Your task to perform on an android device: set default search engine in the chrome app Image 0: 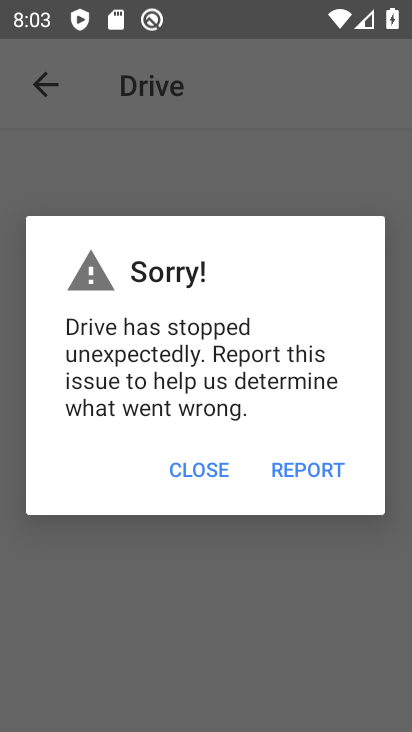
Step 0: press home button
Your task to perform on an android device: set default search engine in the chrome app Image 1: 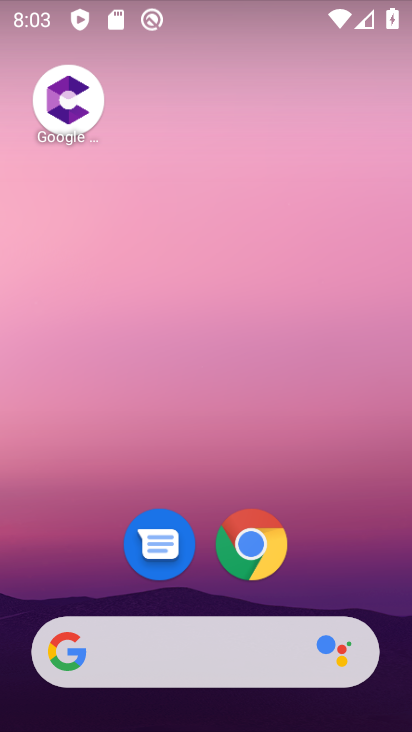
Step 1: click (248, 547)
Your task to perform on an android device: set default search engine in the chrome app Image 2: 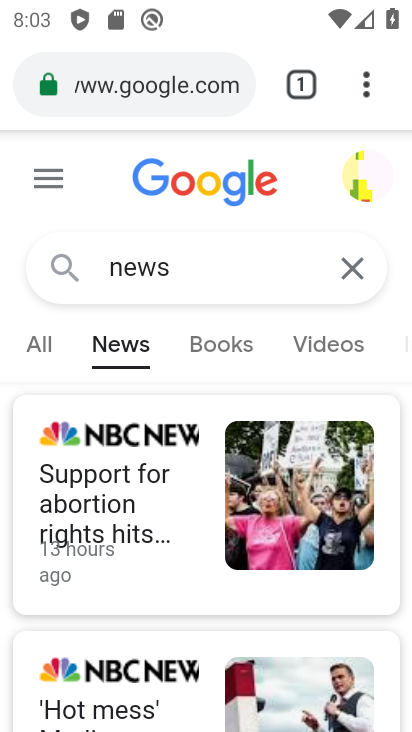
Step 2: click (380, 85)
Your task to perform on an android device: set default search engine in the chrome app Image 3: 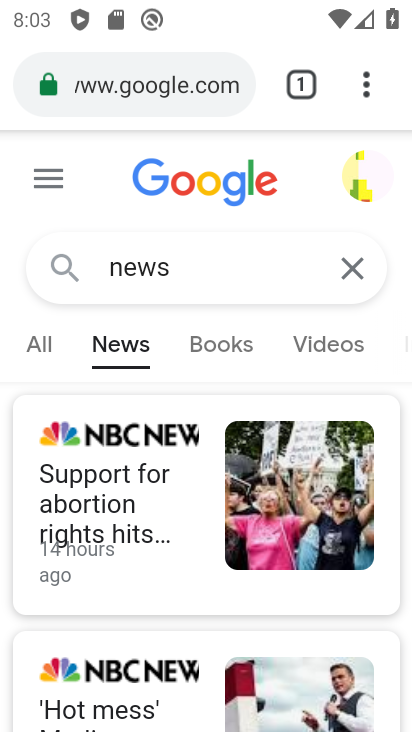
Step 3: drag from (366, 89) to (113, 604)
Your task to perform on an android device: set default search engine in the chrome app Image 4: 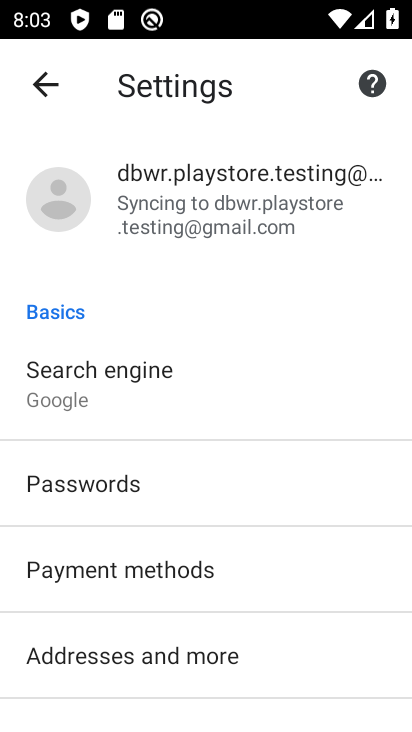
Step 4: click (134, 361)
Your task to perform on an android device: set default search engine in the chrome app Image 5: 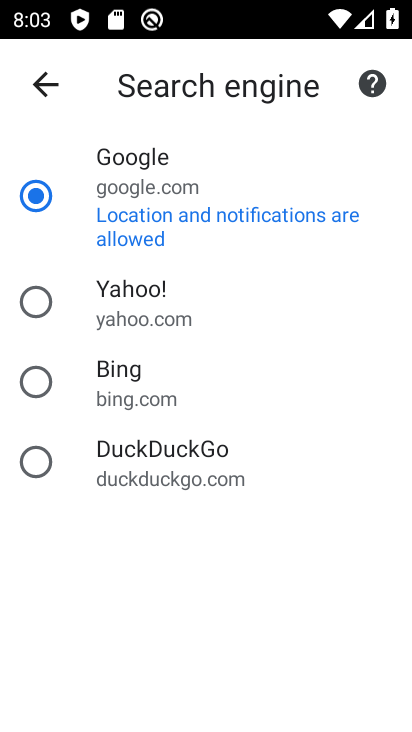
Step 5: task complete